Your task to perform on an android device: Go to network settings Image 0: 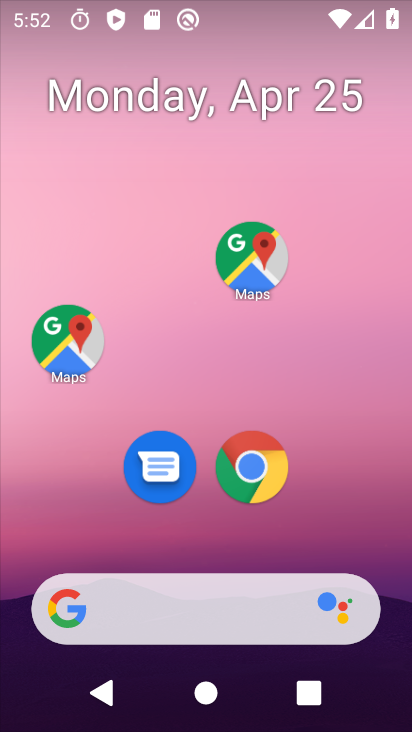
Step 0: drag from (379, 575) to (382, 0)
Your task to perform on an android device: Go to network settings Image 1: 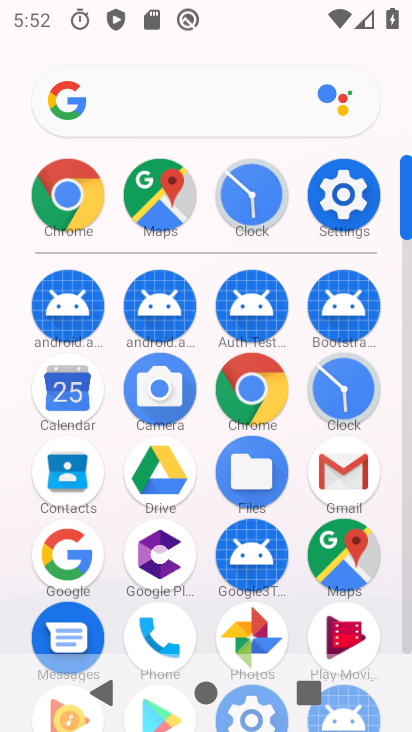
Step 1: click (351, 218)
Your task to perform on an android device: Go to network settings Image 2: 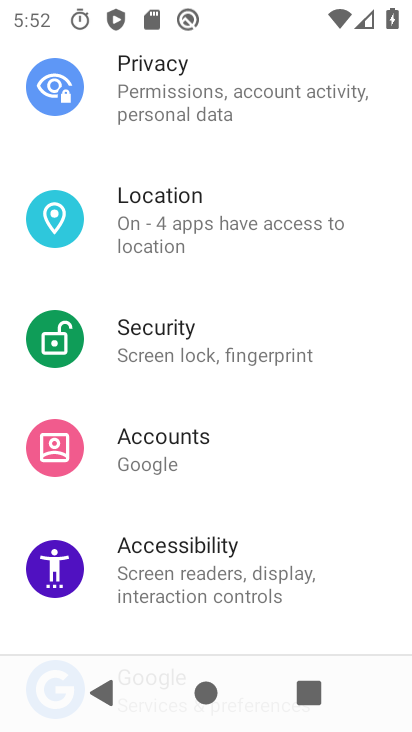
Step 2: drag from (196, 118) to (257, 728)
Your task to perform on an android device: Go to network settings Image 3: 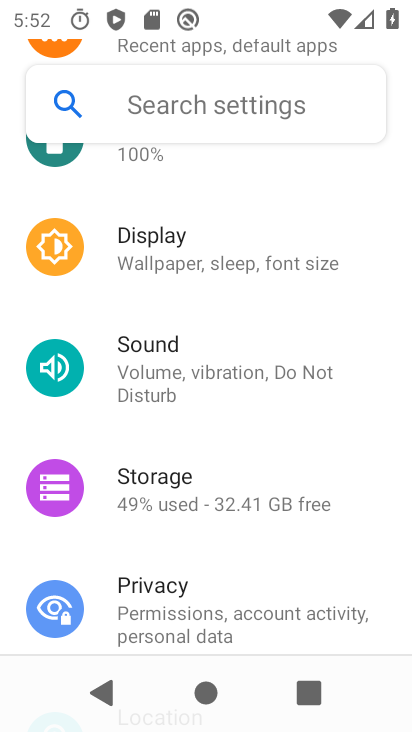
Step 3: drag from (232, 363) to (251, 644)
Your task to perform on an android device: Go to network settings Image 4: 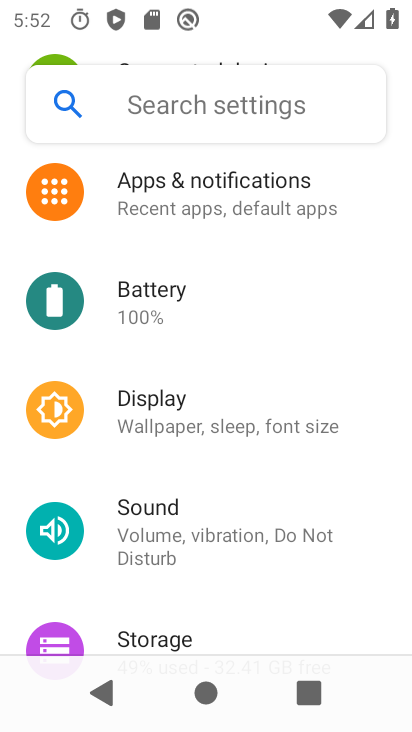
Step 4: drag from (255, 194) to (306, 730)
Your task to perform on an android device: Go to network settings Image 5: 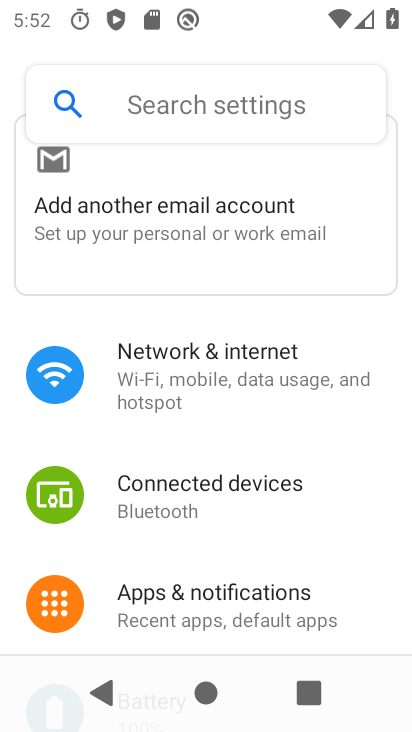
Step 5: click (249, 380)
Your task to perform on an android device: Go to network settings Image 6: 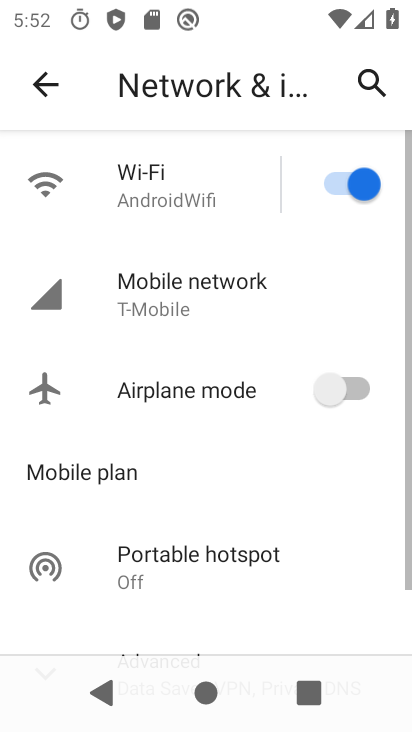
Step 6: task complete